Your task to perform on an android device: open app "Upside-Cash back on gas & food" (install if not already installed), go to login, and select forgot password Image 0: 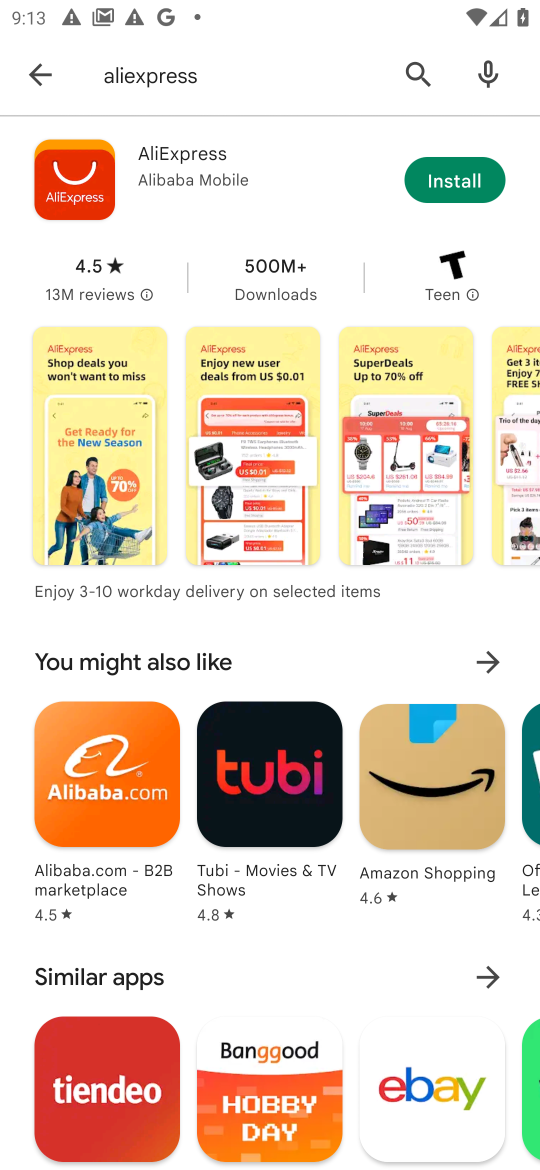
Step 0: press home button
Your task to perform on an android device: open app "Upside-Cash back on gas & food" (install if not already installed), go to login, and select forgot password Image 1: 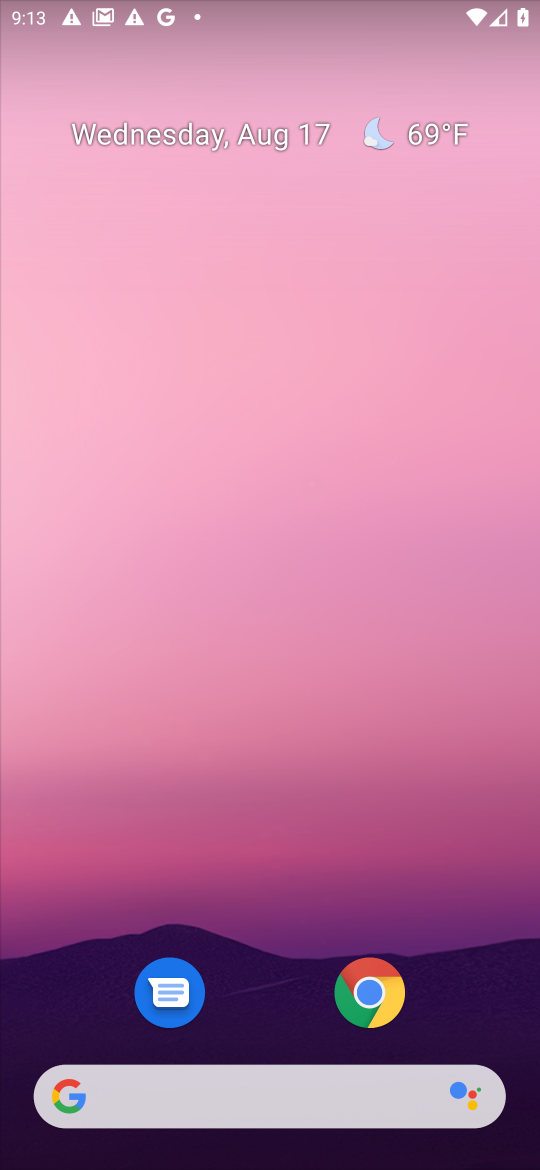
Step 1: drag from (461, 1004) to (147, 31)
Your task to perform on an android device: open app "Upside-Cash back on gas & food" (install if not already installed), go to login, and select forgot password Image 2: 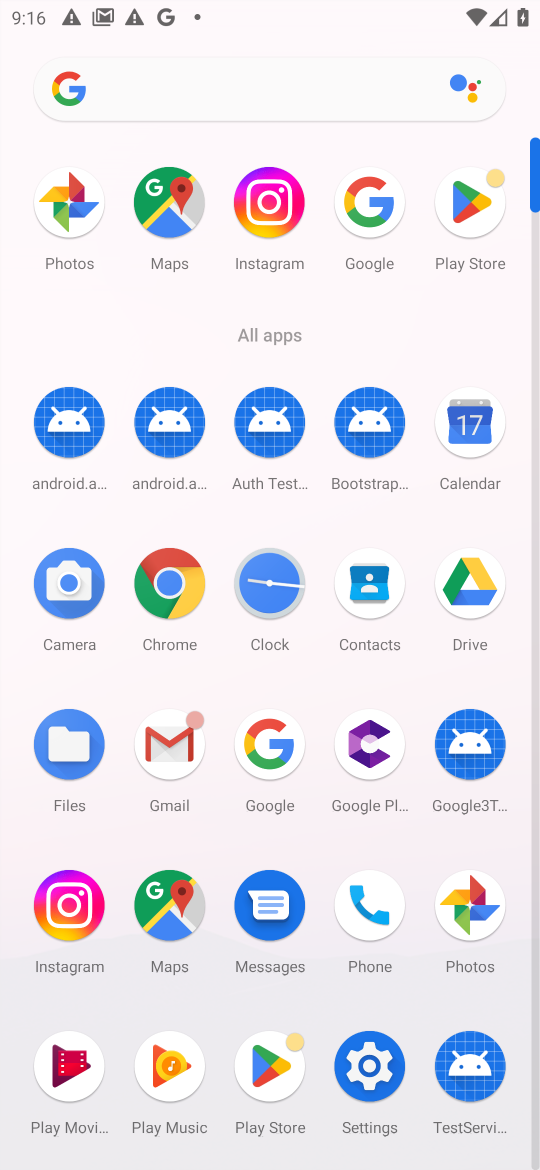
Step 2: click (257, 1073)
Your task to perform on an android device: open app "Upside-Cash back on gas & food" (install if not already installed), go to login, and select forgot password Image 3: 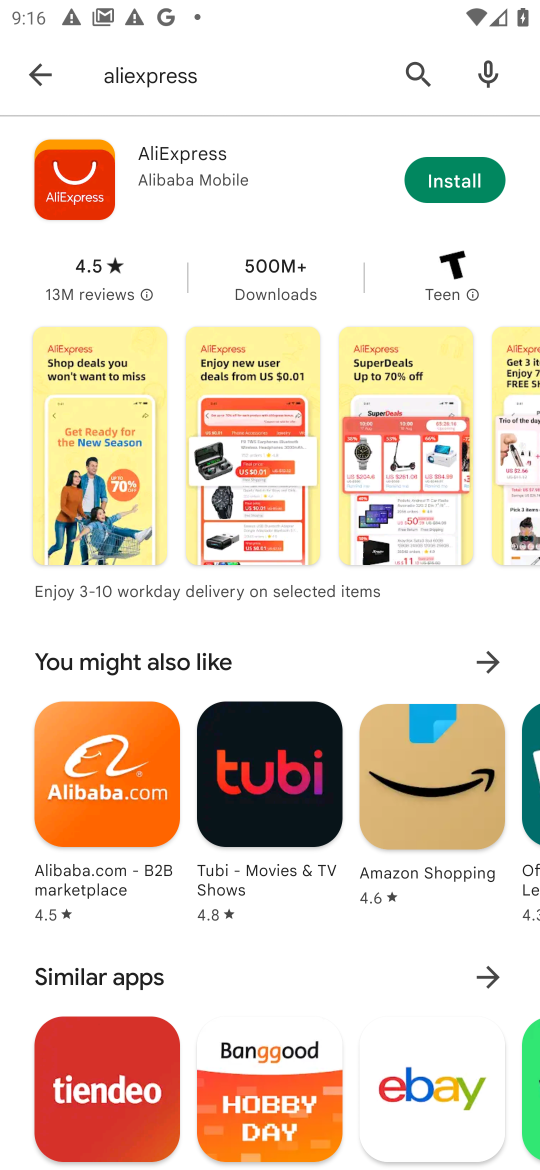
Step 3: press back button
Your task to perform on an android device: open app "Upside-Cash back on gas & food" (install if not already installed), go to login, and select forgot password Image 4: 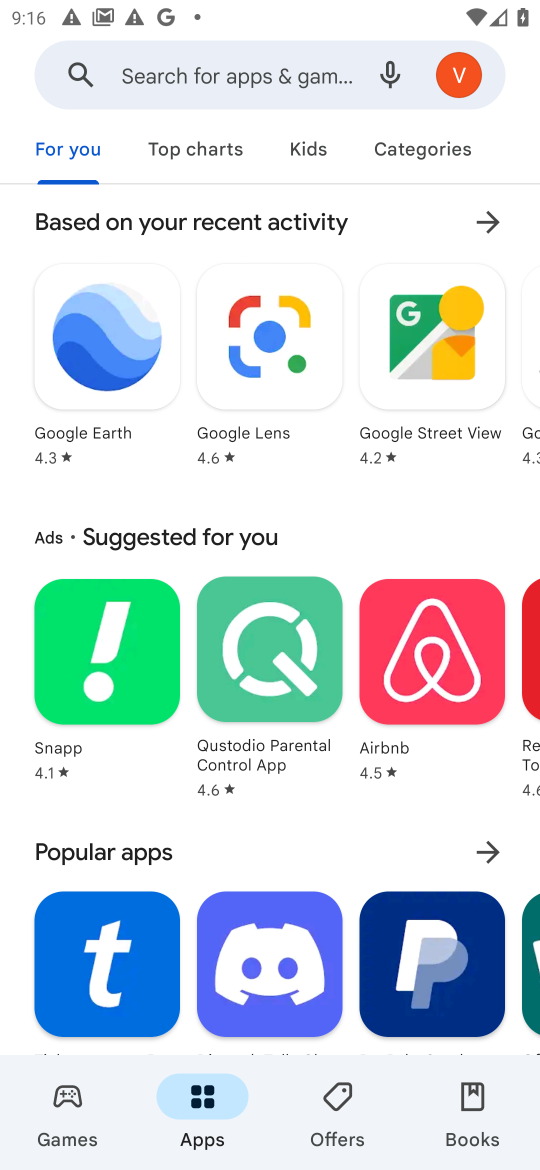
Step 4: click (147, 60)
Your task to perform on an android device: open app "Upside-Cash back on gas & food" (install if not already installed), go to login, and select forgot password Image 5: 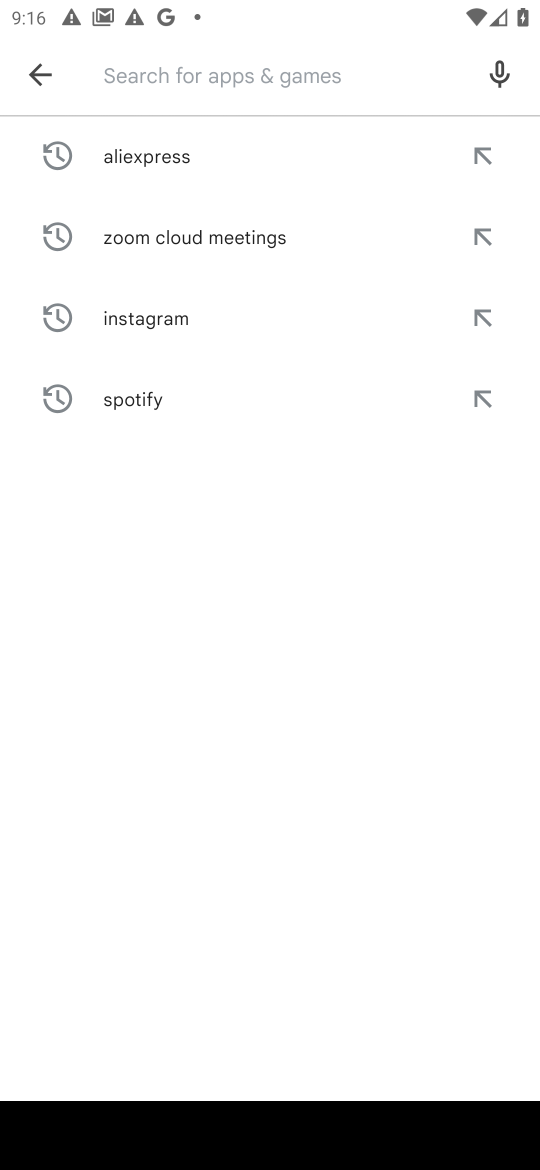
Step 5: type "Upside-Cash back on gas & food"
Your task to perform on an android device: open app "Upside-Cash back on gas & food" (install if not already installed), go to login, and select forgot password Image 6: 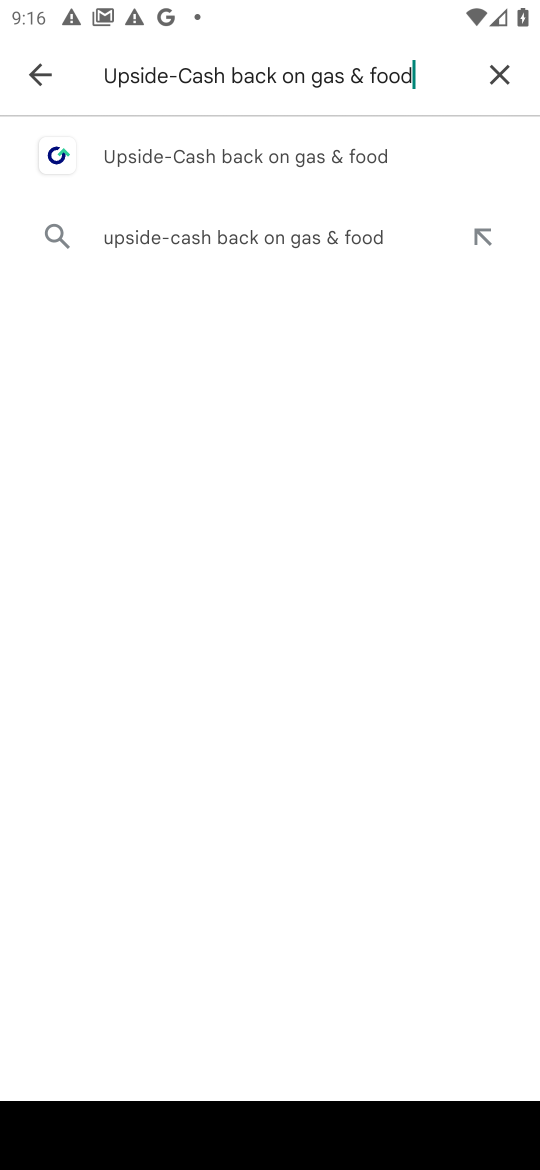
Step 6: click (253, 156)
Your task to perform on an android device: open app "Upside-Cash back on gas & food" (install if not already installed), go to login, and select forgot password Image 7: 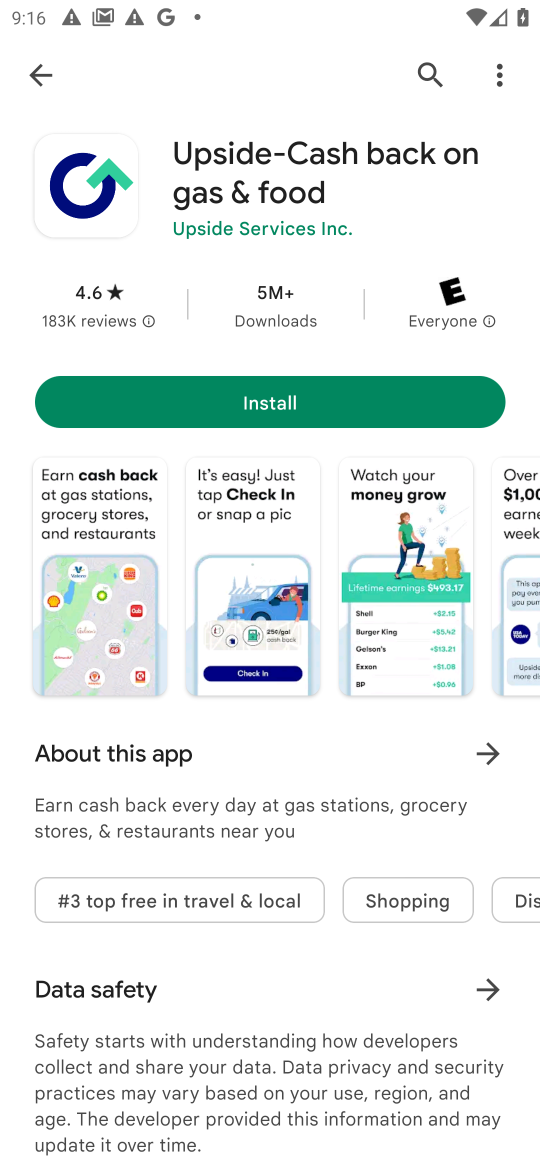
Step 7: task complete